Your task to perform on an android device: add a contact in the contacts app Image 0: 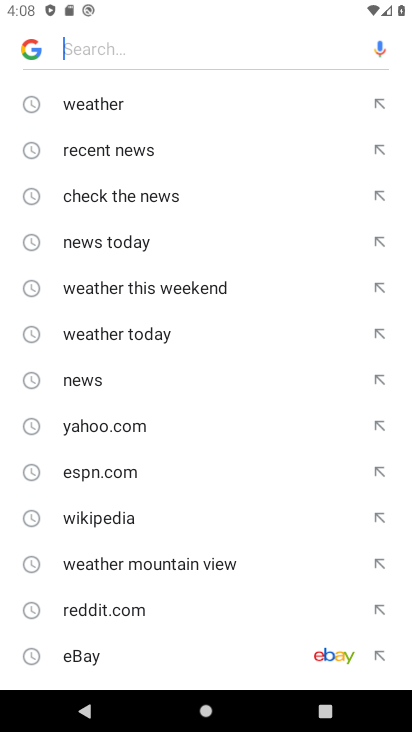
Step 0: press home button
Your task to perform on an android device: add a contact in the contacts app Image 1: 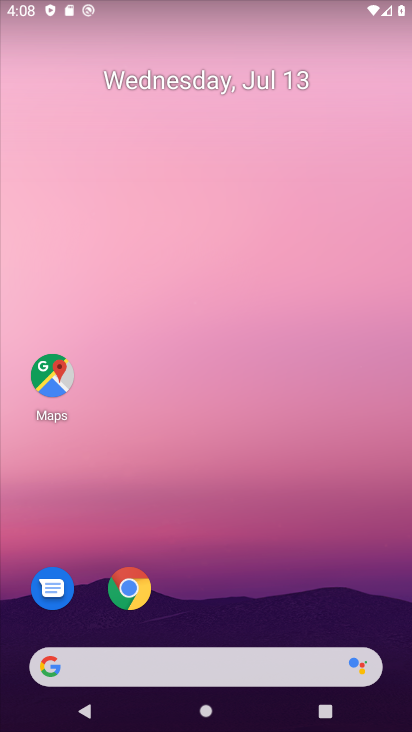
Step 1: task complete